Your task to perform on an android device: What is the recent news? Image 0: 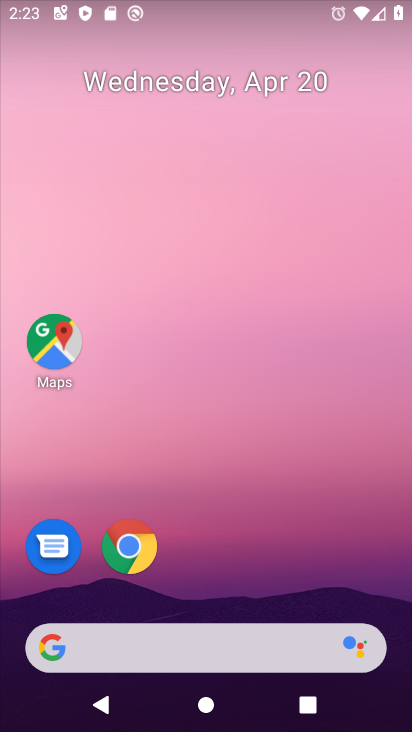
Step 0: drag from (260, 664) to (202, 162)
Your task to perform on an android device: What is the recent news? Image 1: 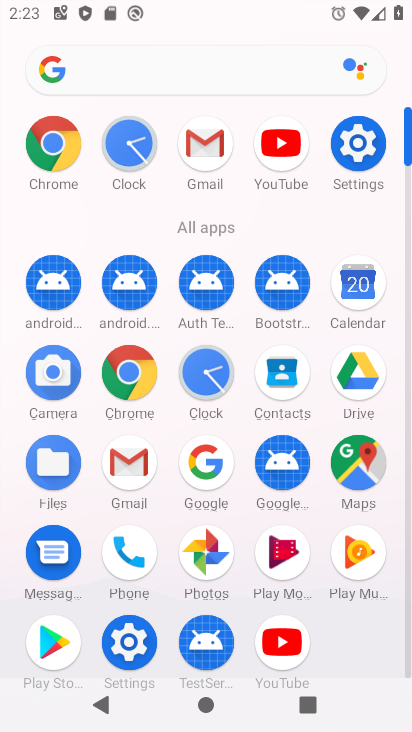
Step 1: click (110, 78)
Your task to perform on an android device: What is the recent news? Image 2: 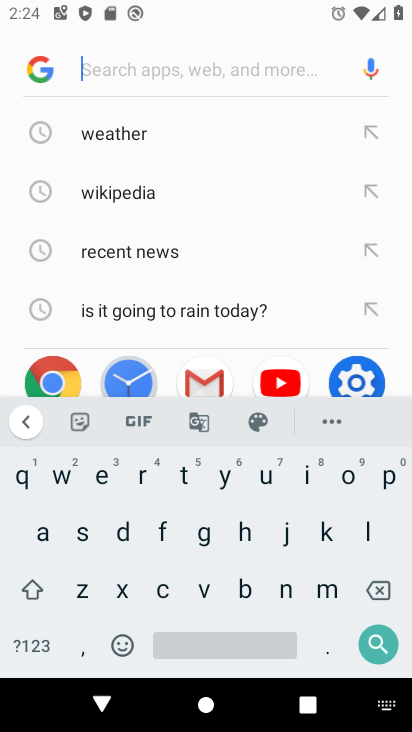
Step 2: click (142, 242)
Your task to perform on an android device: What is the recent news? Image 3: 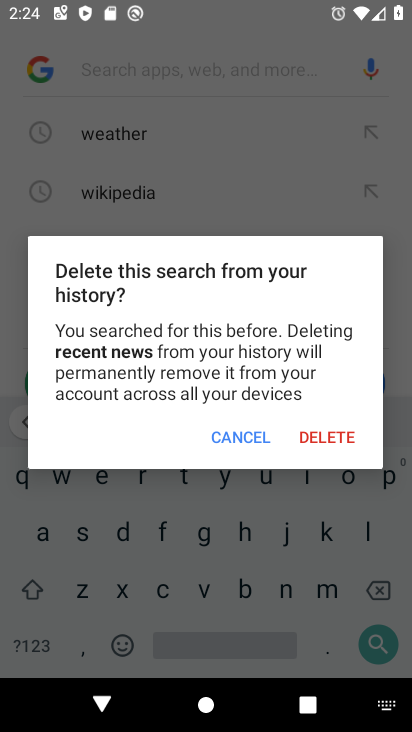
Step 3: click (243, 430)
Your task to perform on an android device: What is the recent news? Image 4: 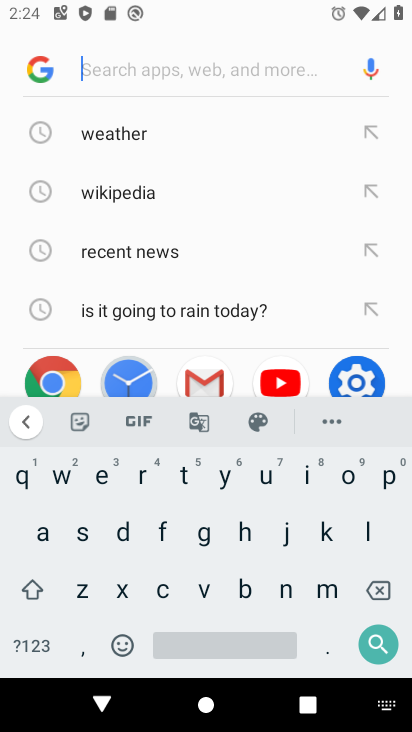
Step 4: click (144, 248)
Your task to perform on an android device: What is the recent news? Image 5: 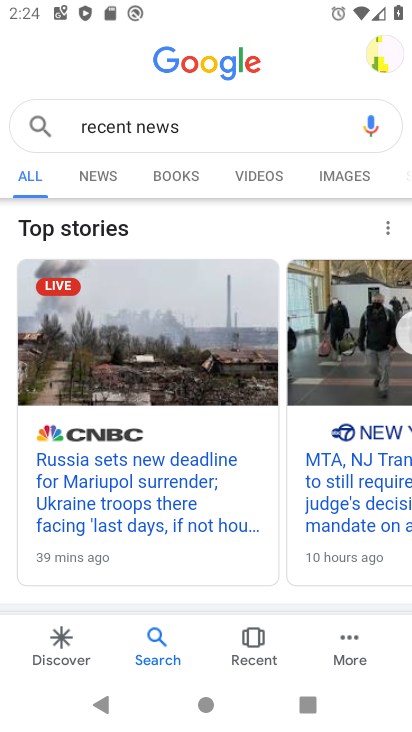
Step 5: task complete